Your task to perform on an android device: refresh tabs in the chrome app Image 0: 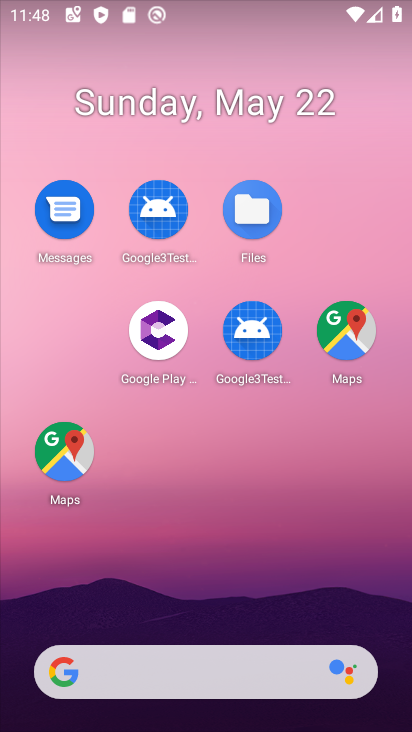
Step 0: drag from (251, 626) to (124, 16)
Your task to perform on an android device: refresh tabs in the chrome app Image 1: 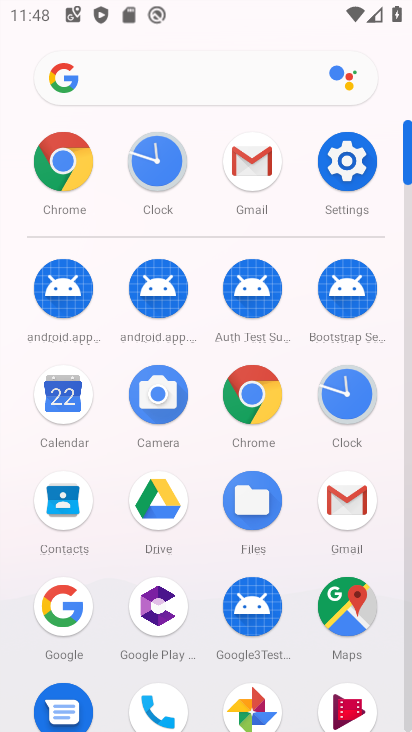
Step 1: click (261, 383)
Your task to perform on an android device: refresh tabs in the chrome app Image 2: 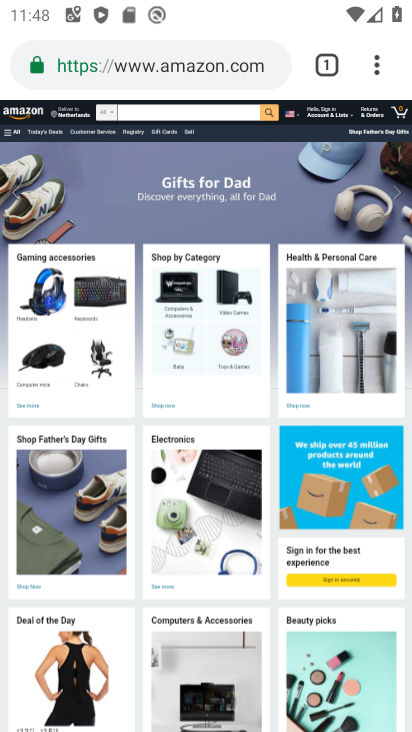
Step 2: click (376, 75)
Your task to perform on an android device: refresh tabs in the chrome app Image 3: 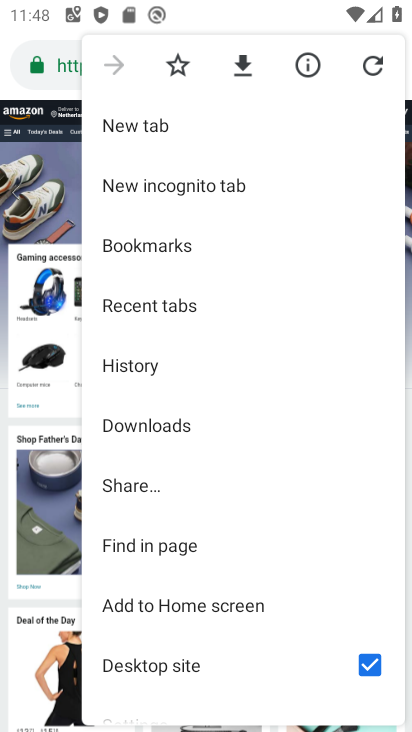
Step 3: click (374, 62)
Your task to perform on an android device: refresh tabs in the chrome app Image 4: 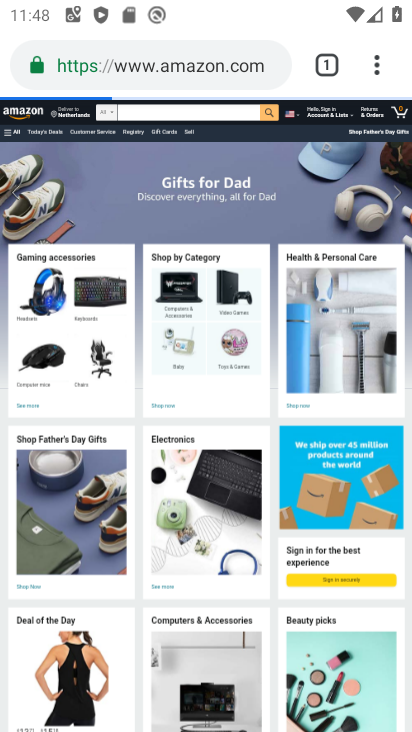
Step 4: task complete